Your task to perform on an android device: Go to calendar. Show me events next week Image 0: 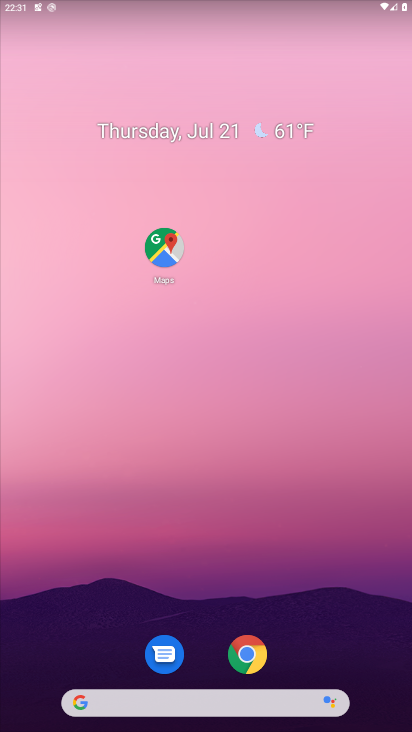
Step 0: click (212, 109)
Your task to perform on an android device: Go to calendar. Show me events next week Image 1: 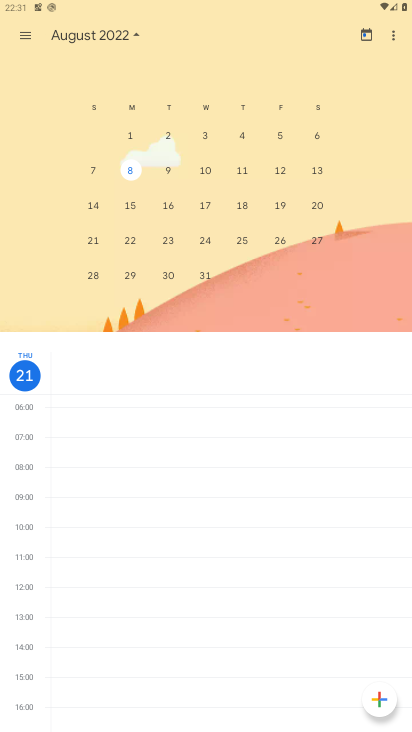
Step 1: task complete